Your task to perform on an android device: Open eBay Image 0: 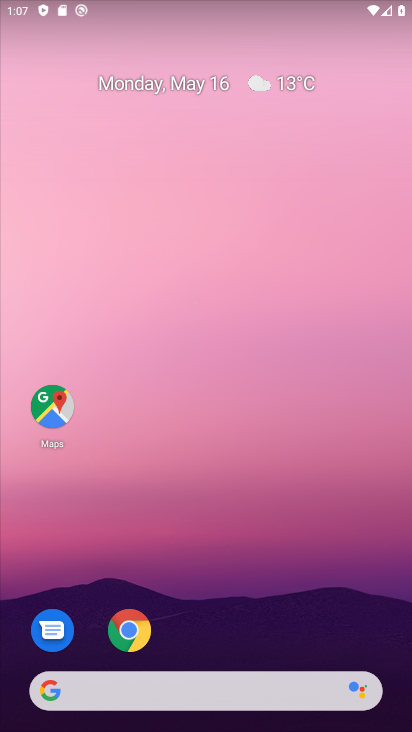
Step 0: click (120, 632)
Your task to perform on an android device: Open eBay Image 1: 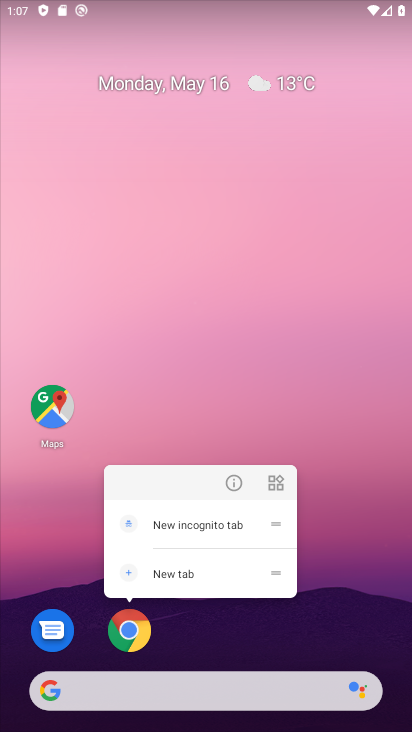
Step 1: click (120, 632)
Your task to perform on an android device: Open eBay Image 2: 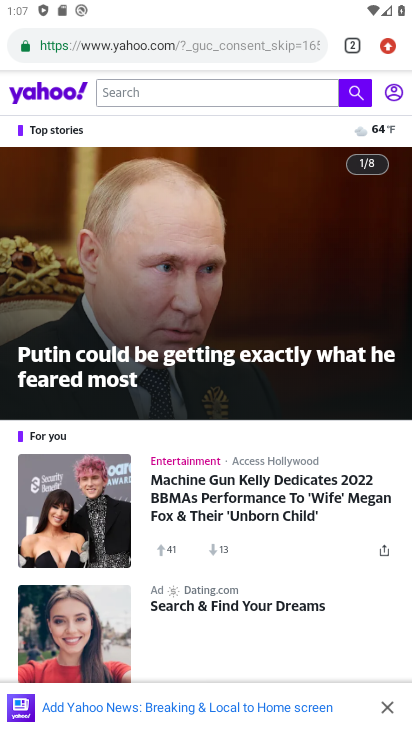
Step 2: click (357, 47)
Your task to perform on an android device: Open eBay Image 3: 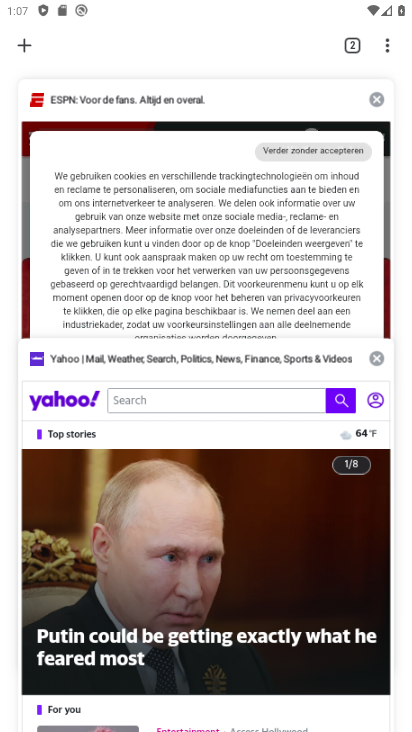
Step 3: click (19, 37)
Your task to perform on an android device: Open eBay Image 4: 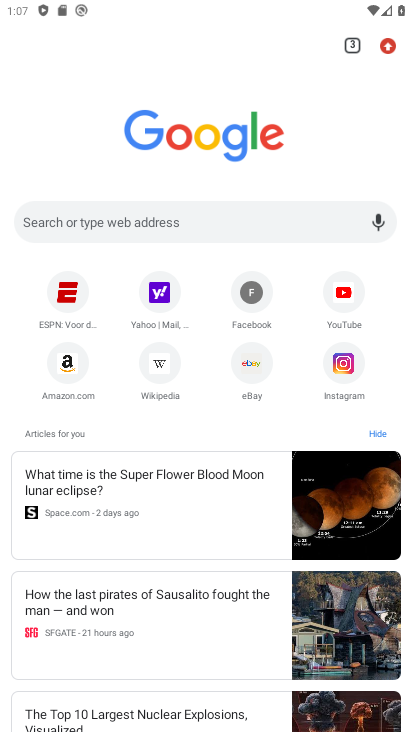
Step 4: click (245, 365)
Your task to perform on an android device: Open eBay Image 5: 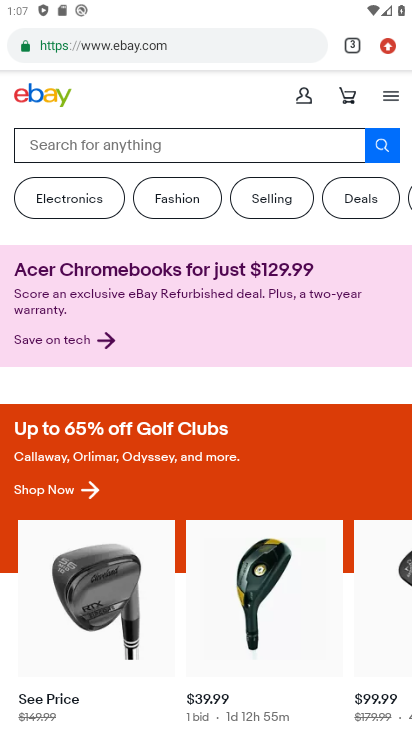
Step 5: task complete